Your task to perform on an android device: Open the Play Movies app and select the watchlist tab. Image 0: 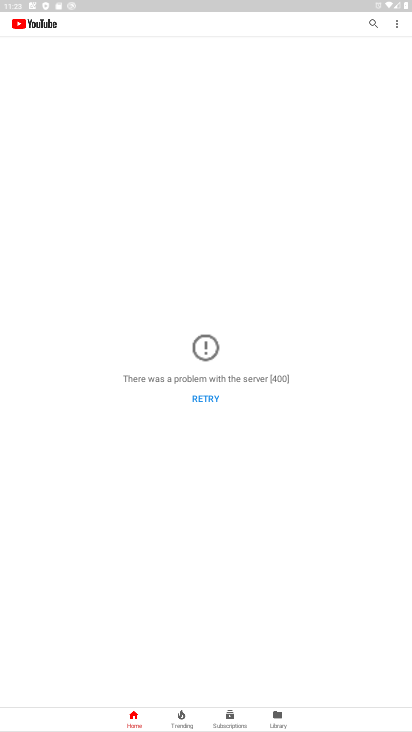
Step 0: press home button
Your task to perform on an android device: Open the Play Movies app and select the watchlist tab. Image 1: 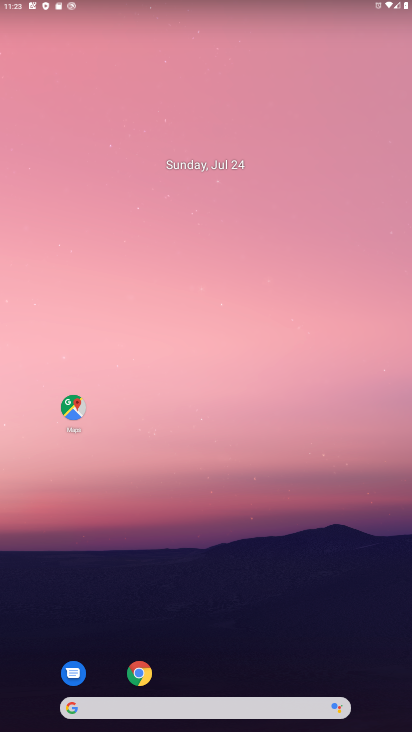
Step 1: drag from (335, 628) to (386, 9)
Your task to perform on an android device: Open the Play Movies app and select the watchlist tab. Image 2: 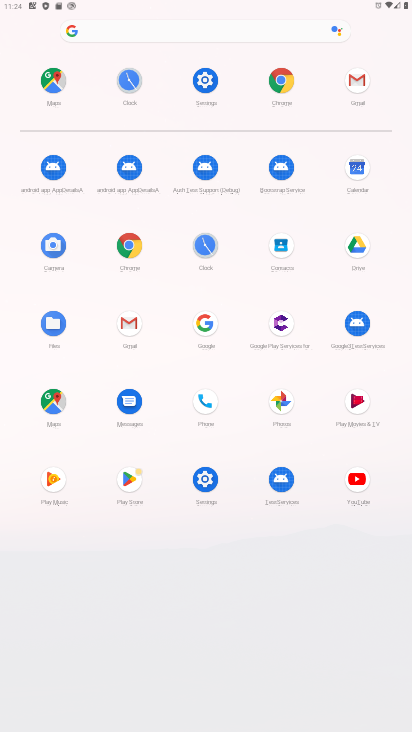
Step 2: click (350, 402)
Your task to perform on an android device: Open the Play Movies app and select the watchlist tab. Image 3: 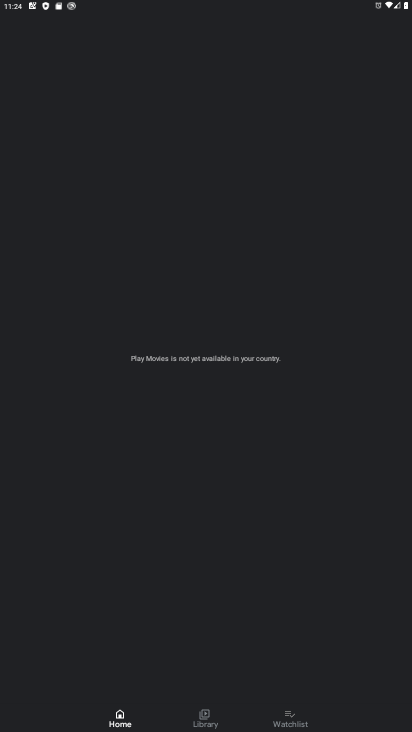
Step 3: click (300, 721)
Your task to perform on an android device: Open the Play Movies app and select the watchlist tab. Image 4: 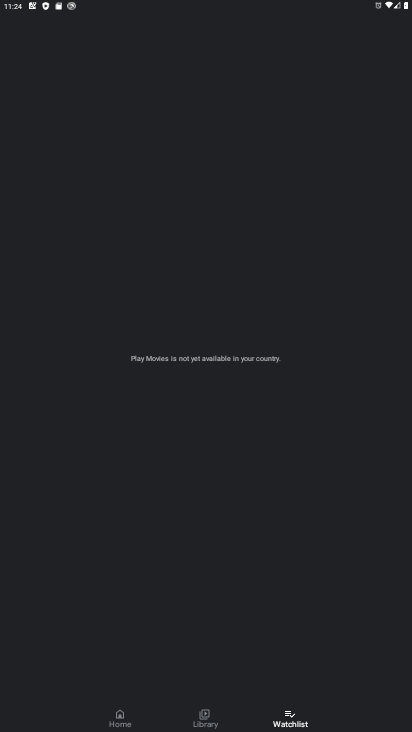
Step 4: task complete